Your task to perform on an android device: turn on data saver in the chrome app Image 0: 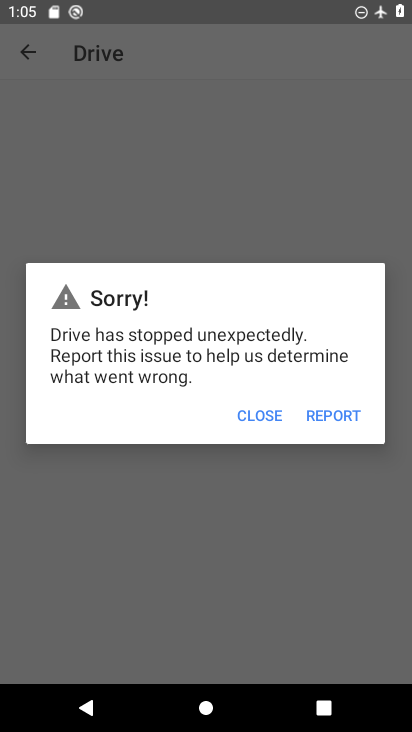
Step 0: press home button
Your task to perform on an android device: turn on data saver in the chrome app Image 1: 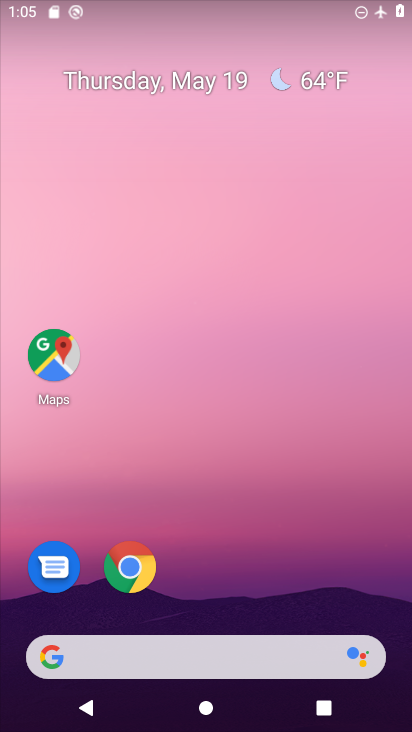
Step 1: click (122, 582)
Your task to perform on an android device: turn on data saver in the chrome app Image 2: 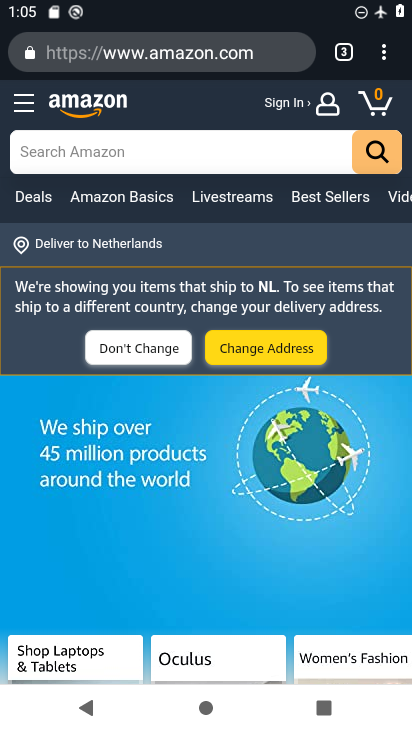
Step 2: drag from (383, 57) to (207, 583)
Your task to perform on an android device: turn on data saver in the chrome app Image 3: 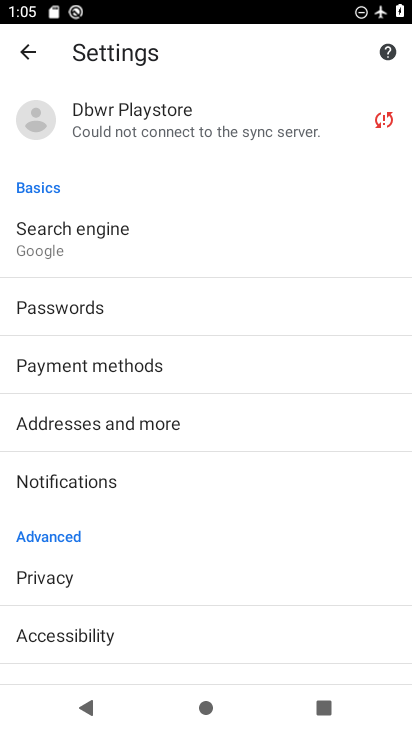
Step 3: drag from (165, 616) to (167, 360)
Your task to perform on an android device: turn on data saver in the chrome app Image 4: 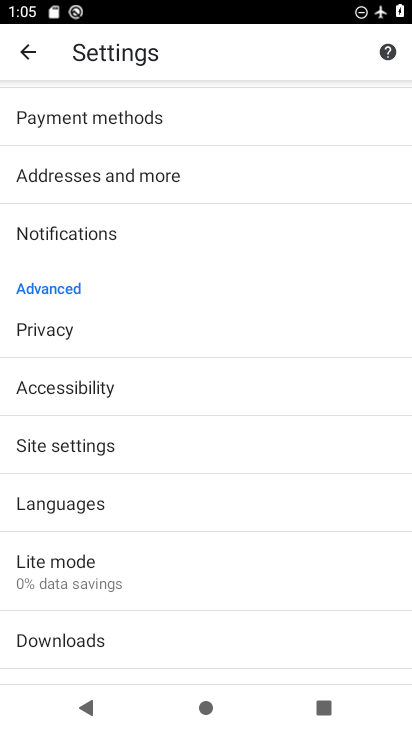
Step 4: click (145, 576)
Your task to perform on an android device: turn on data saver in the chrome app Image 5: 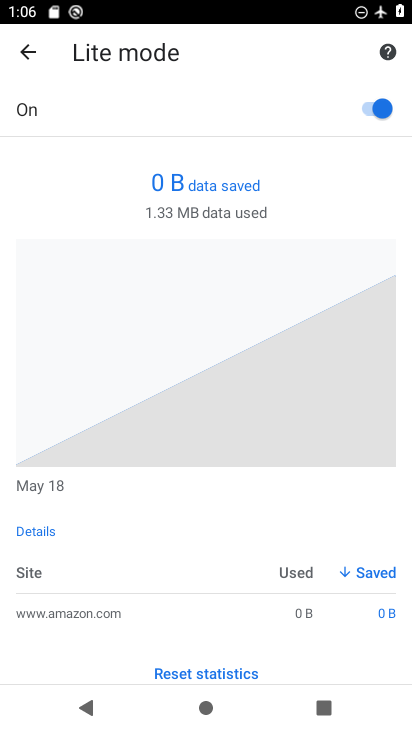
Step 5: task complete